Your task to perform on an android device: delete location history Image 0: 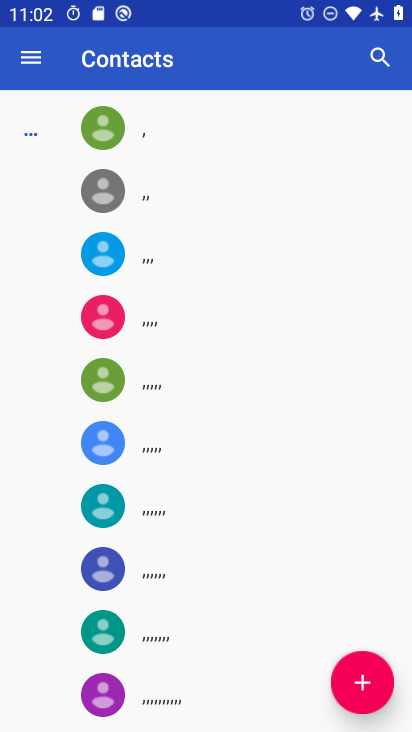
Step 0: press home button
Your task to perform on an android device: delete location history Image 1: 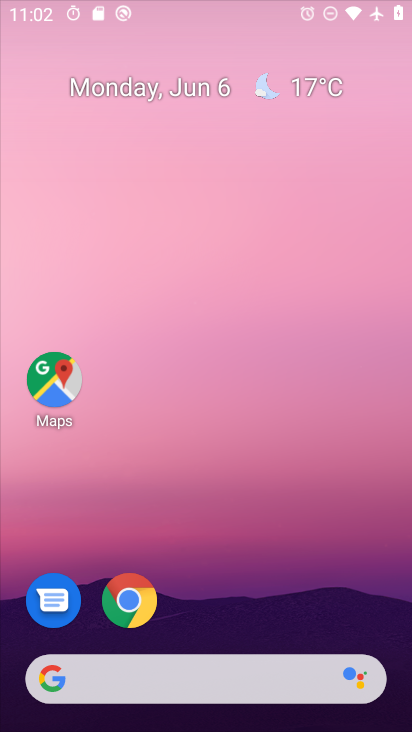
Step 1: drag from (306, 540) to (186, 20)
Your task to perform on an android device: delete location history Image 2: 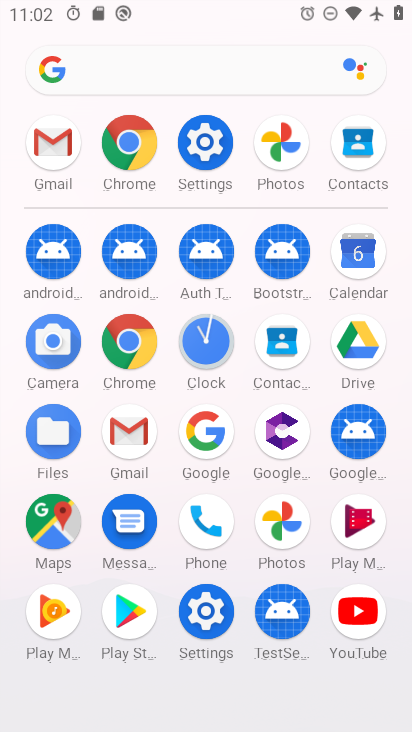
Step 2: click (212, 176)
Your task to perform on an android device: delete location history Image 3: 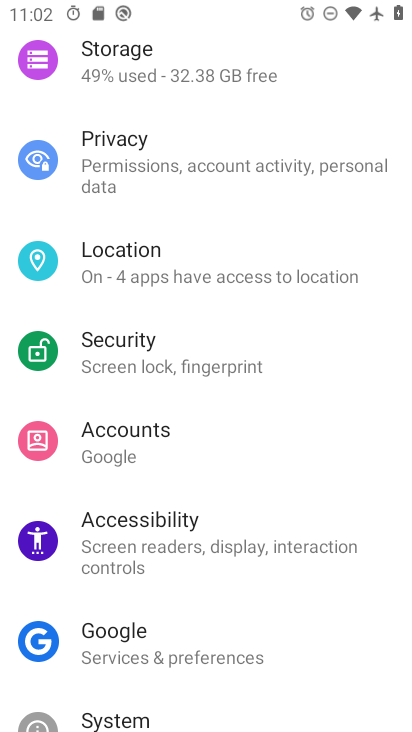
Step 3: click (259, 248)
Your task to perform on an android device: delete location history Image 4: 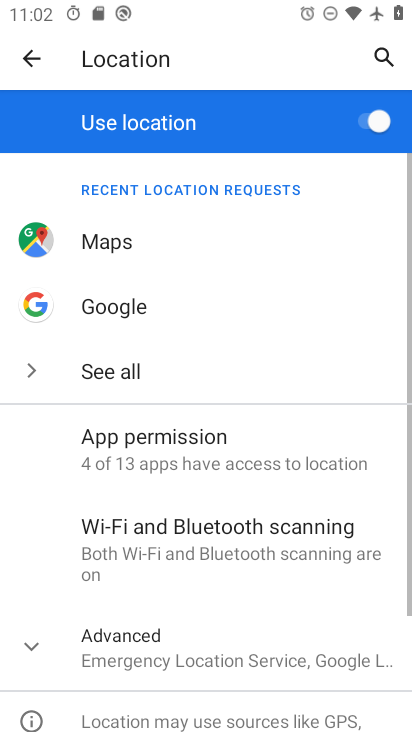
Step 4: drag from (262, 611) to (208, 65)
Your task to perform on an android device: delete location history Image 5: 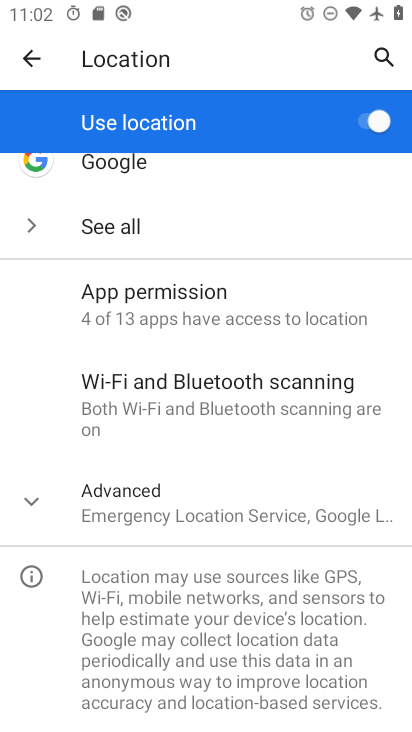
Step 5: click (234, 511)
Your task to perform on an android device: delete location history Image 6: 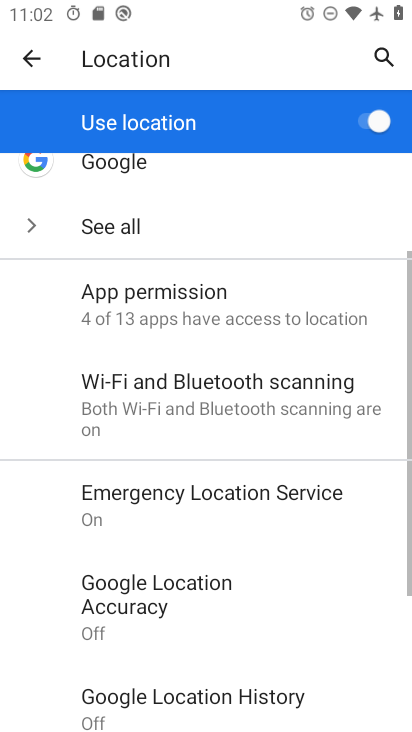
Step 6: drag from (242, 627) to (276, 272)
Your task to perform on an android device: delete location history Image 7: 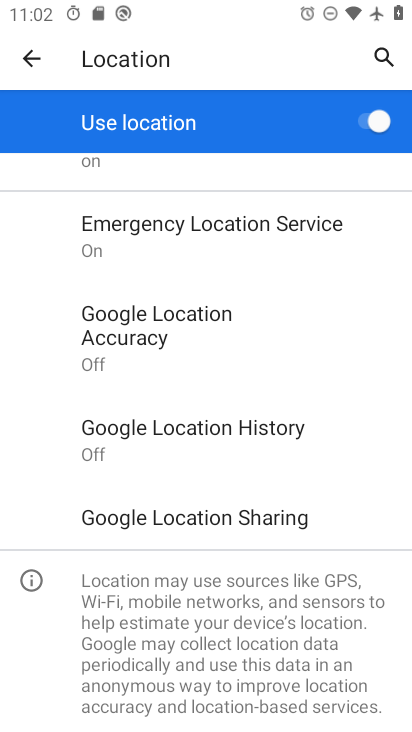
Step 7: click (265, 424)
Your task to perform on an android device: delete location history Image 8: 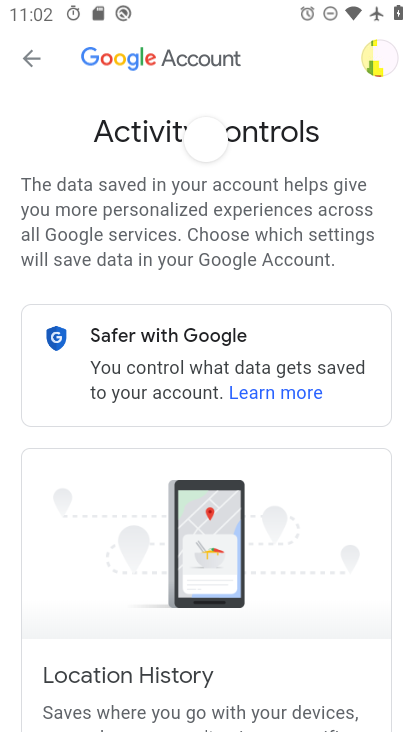
Step 8: drag from (242, 565) to (258, 0)
Your task to perform on an android device: delete location history Image 9: 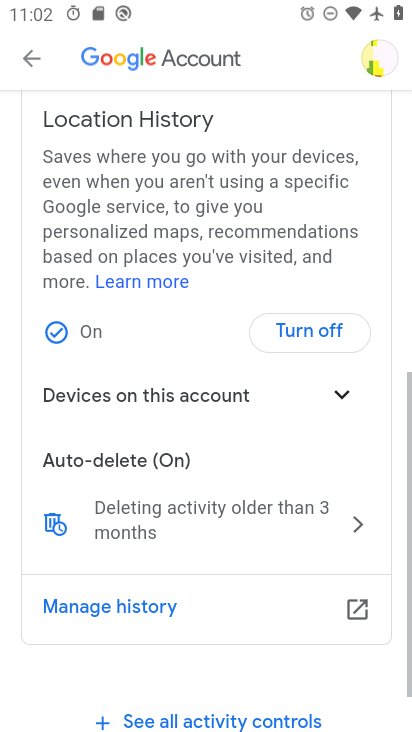
Step 9: drag from (200, 544) to (217, 242)
Your task to perform on an android device: delete location history Image 10: 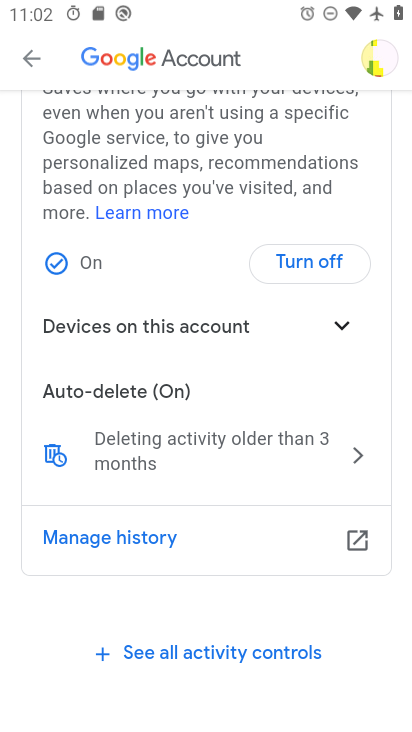
Step 10: click (56, 461)
Your task to perform on an android device: delete location history Image 11: 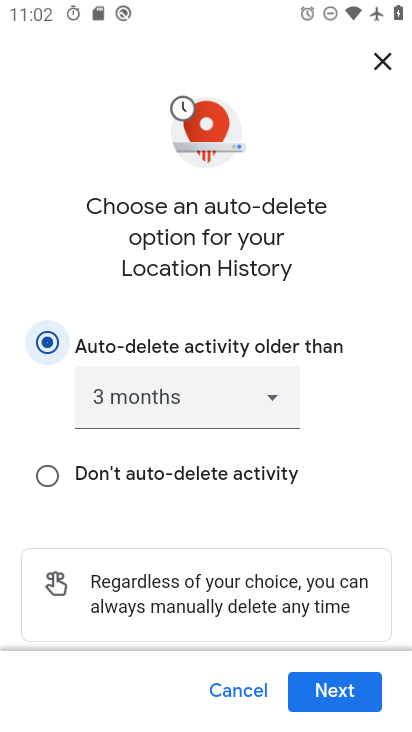
Step 11: click (49, 476)
Your task to perform on an android device: delete location history Image 12: 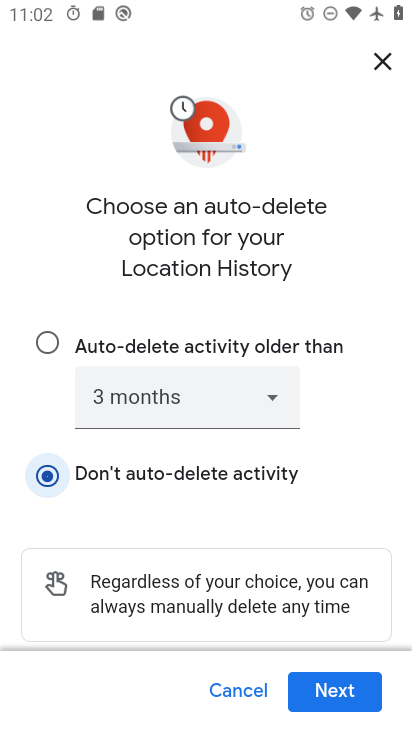
Step 12: click (328, 690)
Your task to perform on an android device: delete location history Image 13: 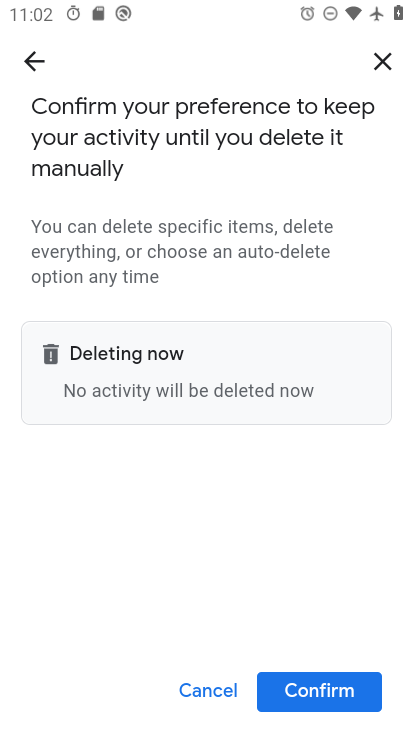
Step 13: click (339, 692)
Your task to perform on an android device: delete location history Image 14: 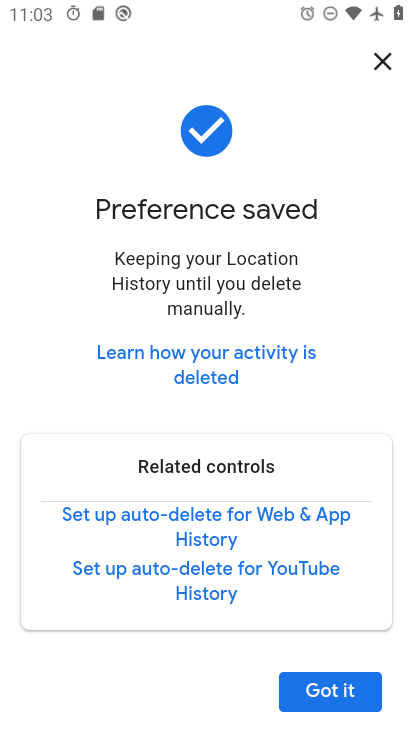
Step 14: click (338, 690)
Your task to perform on an android device: delete location history Image 15: 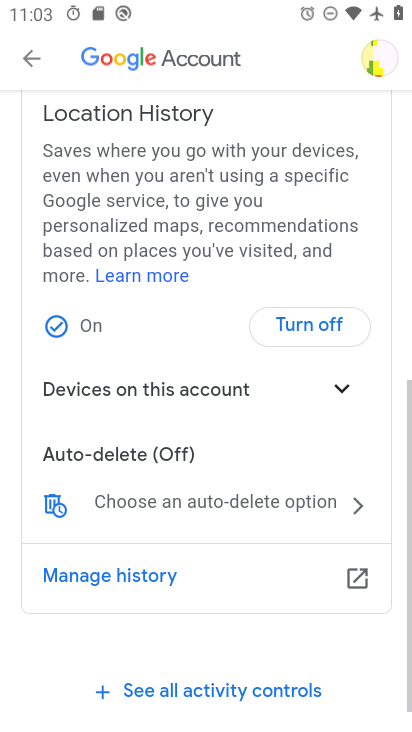
Step 15: task complete